Your task to perform on an android device: Go to network settings Image 0: 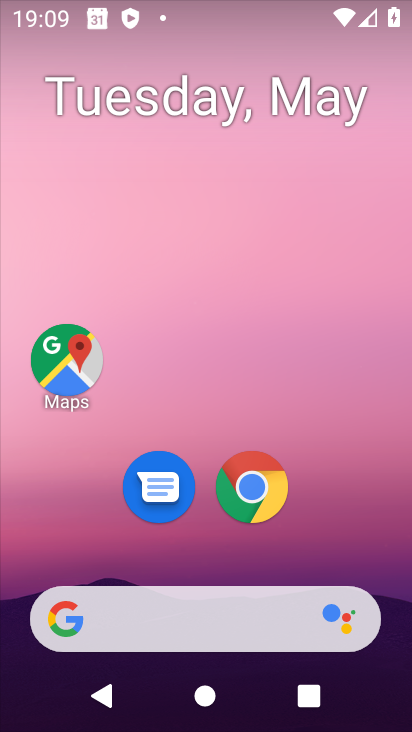
Step 0: drag from (318, 537) to (211, 31)
Your task to perform on an android device: Go to network settings Image 1: 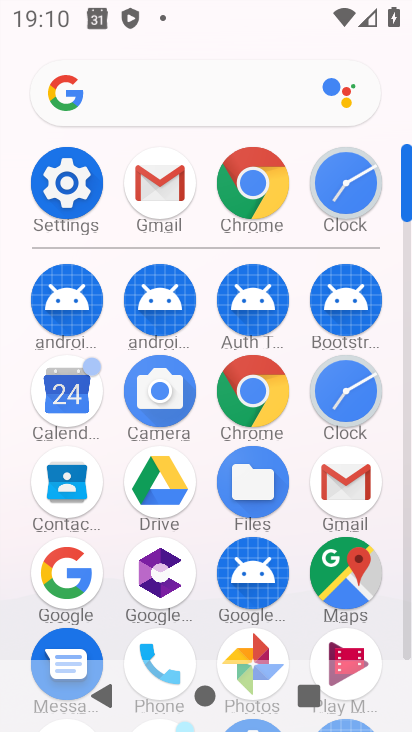
Step 1: click (68, 173)
Your task to perform on an android device: Go to network settings Image 2: 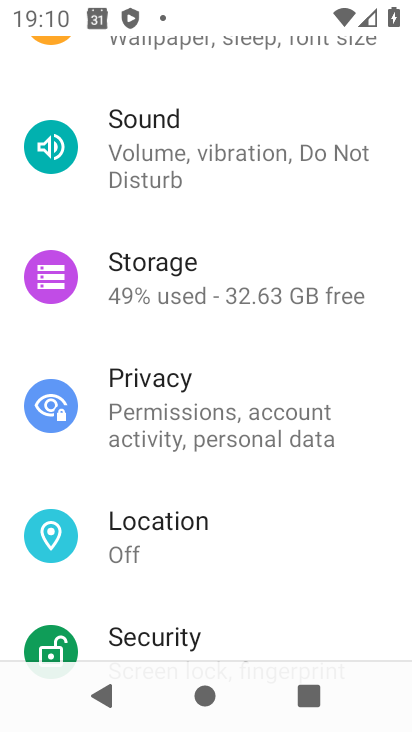
Step 2: drag from (226, 111) to (273, 655)
Your task to perform on an android device: Go to network settings Image 3: 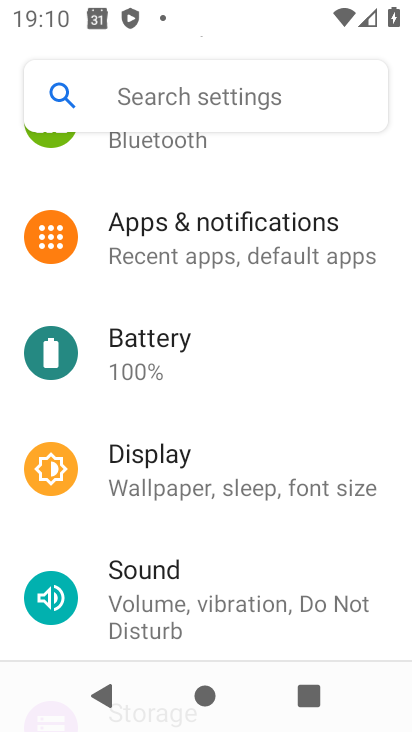
Step 3: drag from (205, 308) to (184, 729)
Your task to perform on an android device: Go to network settings Image 4: 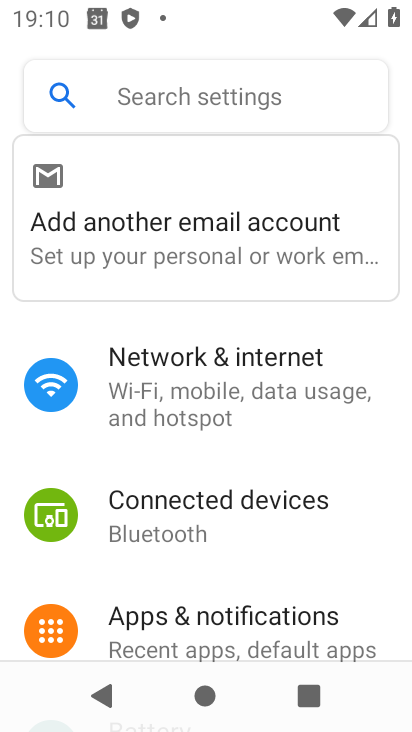
Step 4: click (215, 358)
Your task to perform on an android device: Go to network settings Image 5: 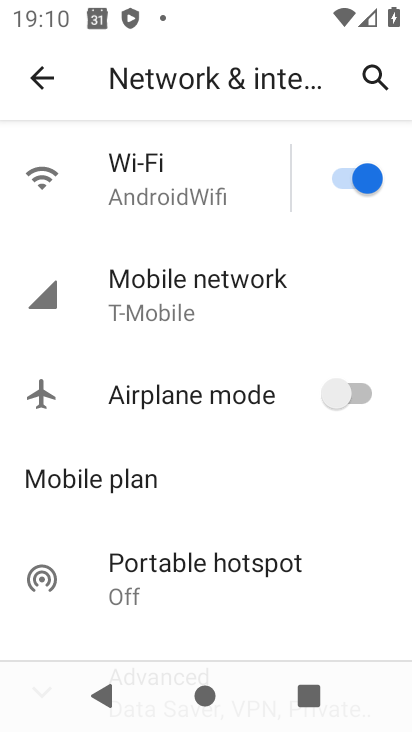
Step 5: task complete